Your task to perform on an android device: Open Amazon Image 0: 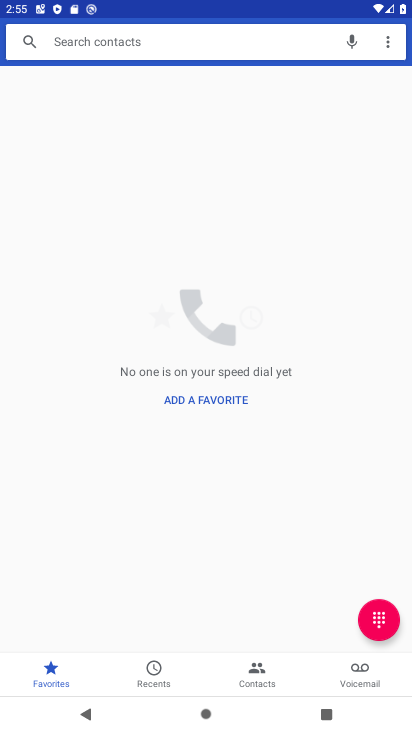
Step 0: press home button
Your task to perform on an android device: Open Amazon Image 1: 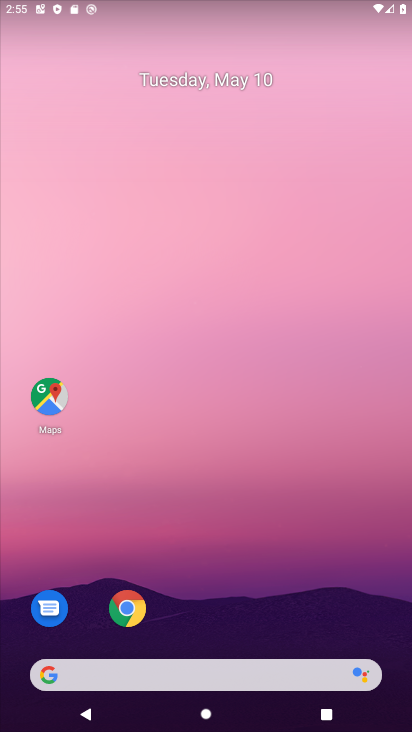
Step 1: click (135, 617)
Your task to perform on an android device: Open Amazon Image 2: 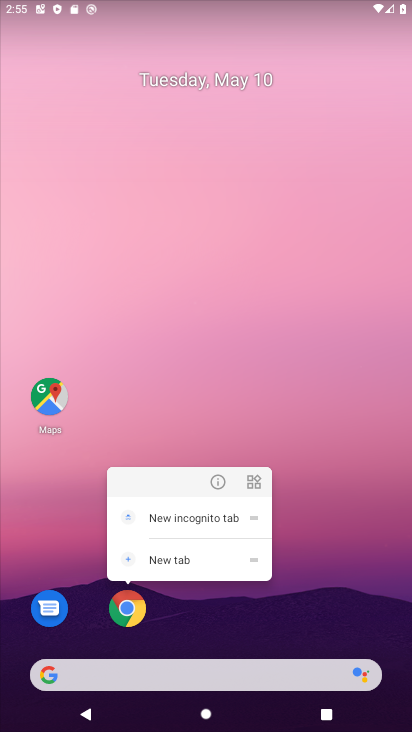
Step 2: click (139, 611)
Your task to perform on an android device: Open Amazon Image 3: 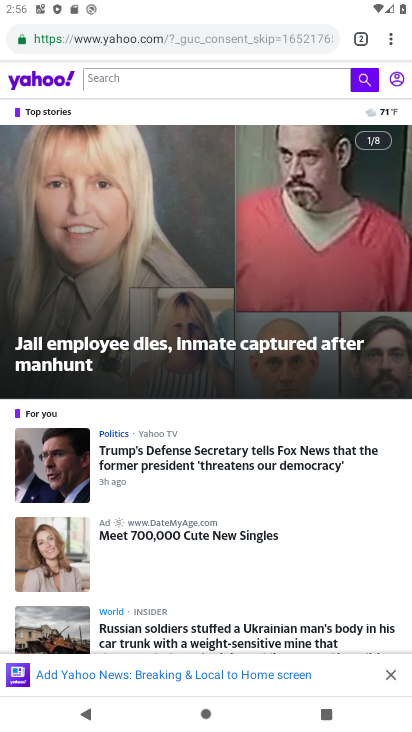
Step 3: click (389, 42)
Your task to perform on an android device: Open Amazon Image 4: 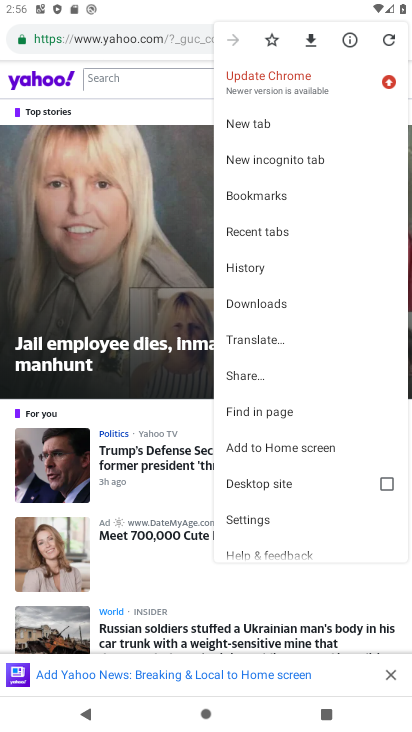
Step 4: click (264, 123)
Your task to perform on an android device: Open Amazon Image 5: 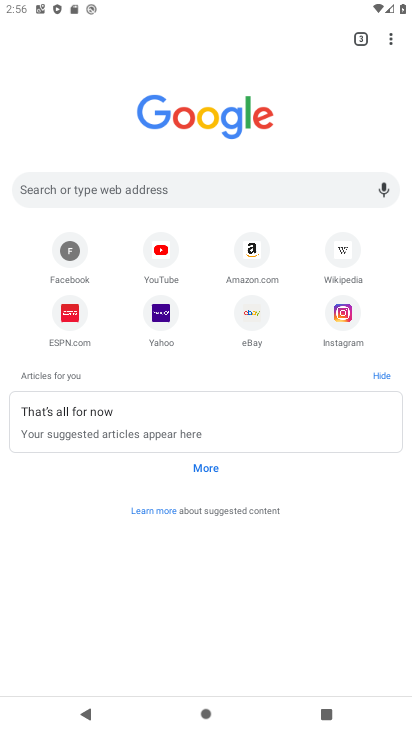
Step 5: click (247, 259)
Your task to perform on an android device: Open Amazon Image 6: 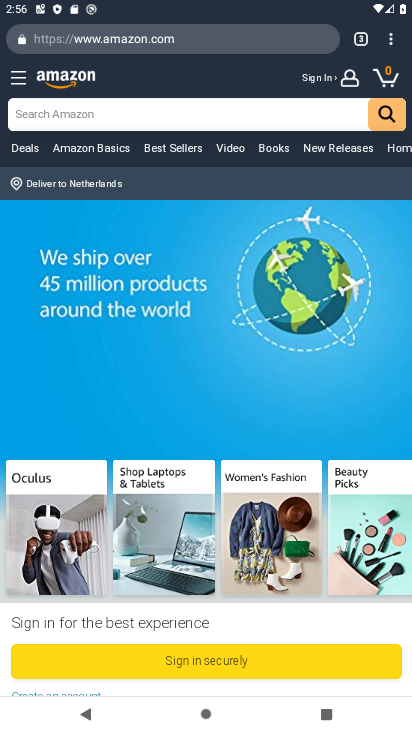
Step 6: task complete